Your task to perform on an android device: clear history in the chrome app Image 0: 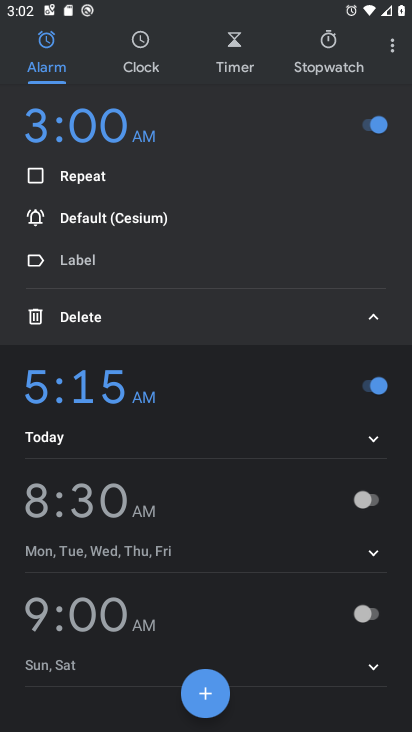
Step 0: press home button
Your task to perform on an android device: clear history in the chrome app Image 1: 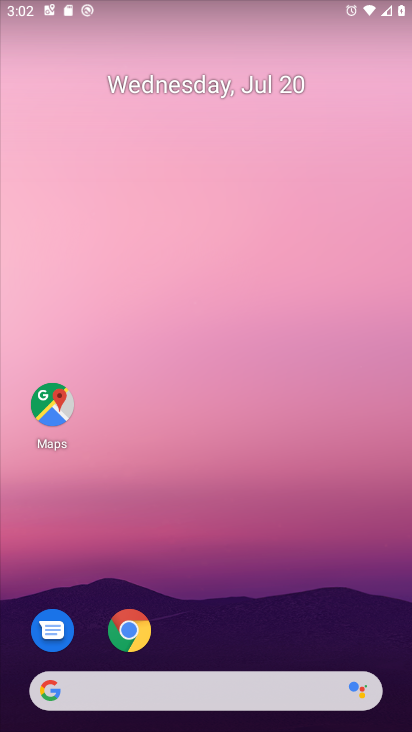
Step 1: drag from (232, 663) to (237, 237)
Your task to perform on an android device: clear history in the chrome app Image 2: 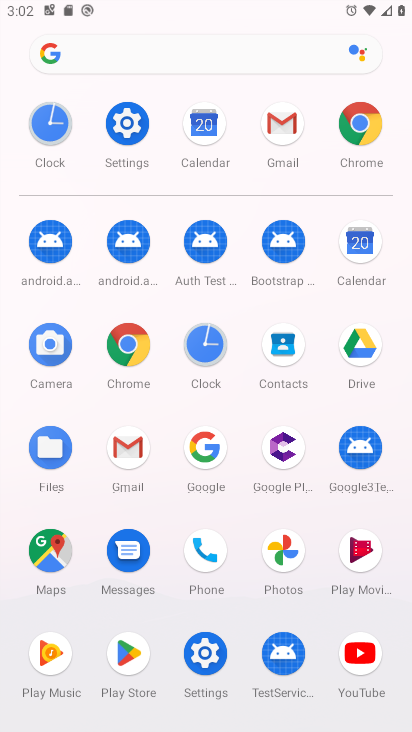
Step 2: click (360, 145)
Your task to perform on an android device: clear history in the chrome app Image 3: 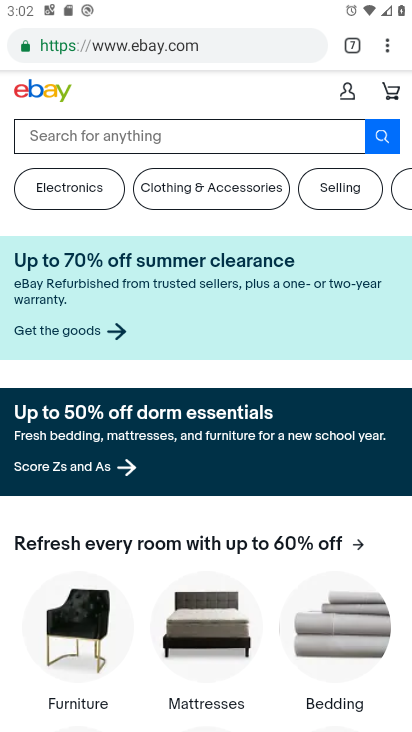
Step 3: click (391, 52)
Your task to perform on an android device: clear history in the chrome app Image 4: 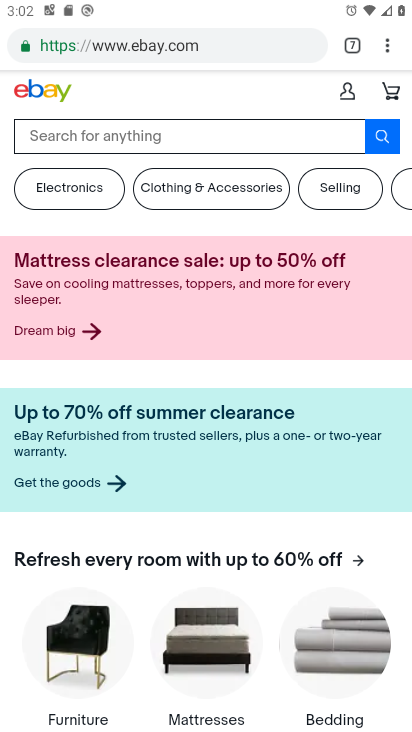
Step 4: click (384, 43)
Your task to perform on an android device: clear history in the chrome app Image 5: 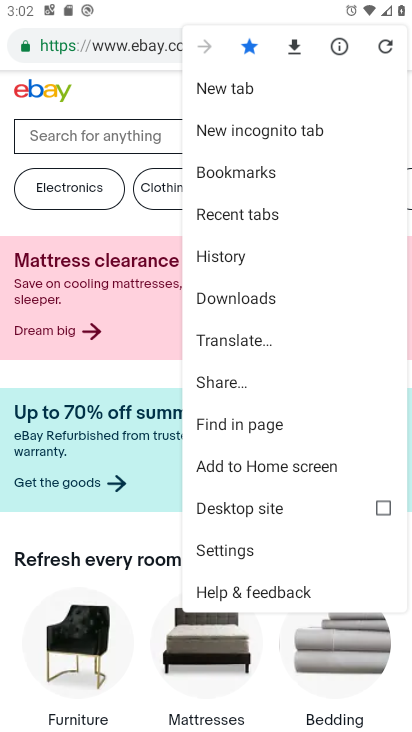
Step 5: click (223, 257)
Your task to perform on an android device: clear history in the chrome app Image 6: 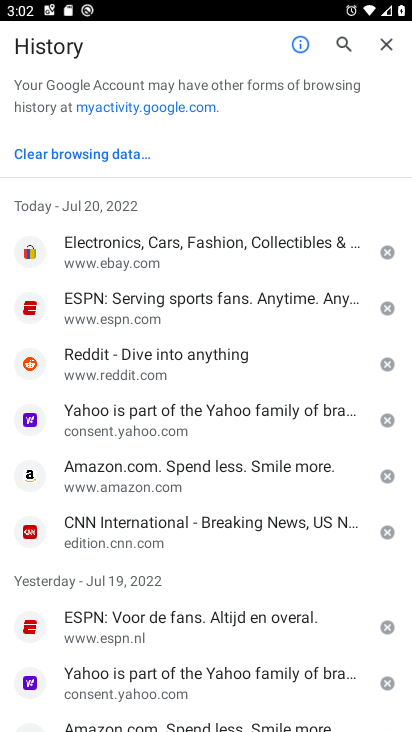
Step 6: click (84, 156)
Your task to perform on an android device: clear history in the chrome app Image 7: 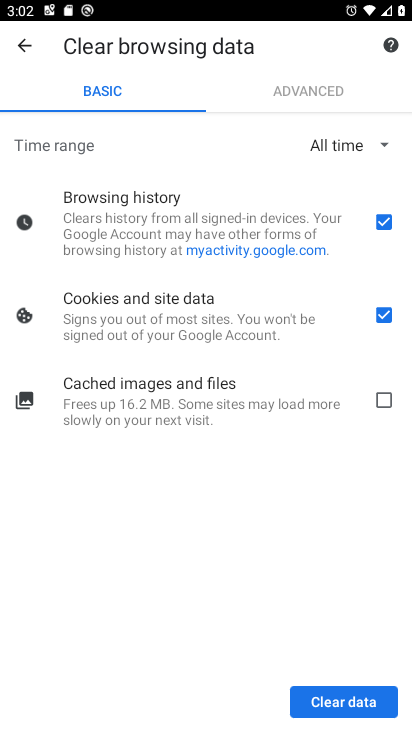
Step 7: click (387, 317)
Your task to perform on an android device: clear history in the chrome app Image 8: 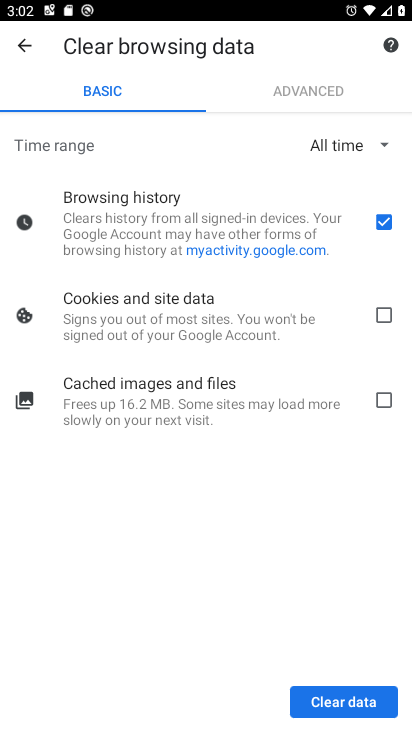
Step 8: click (368, 705)
Your task to perform on an android device: clear history in the chrome app Image 9: 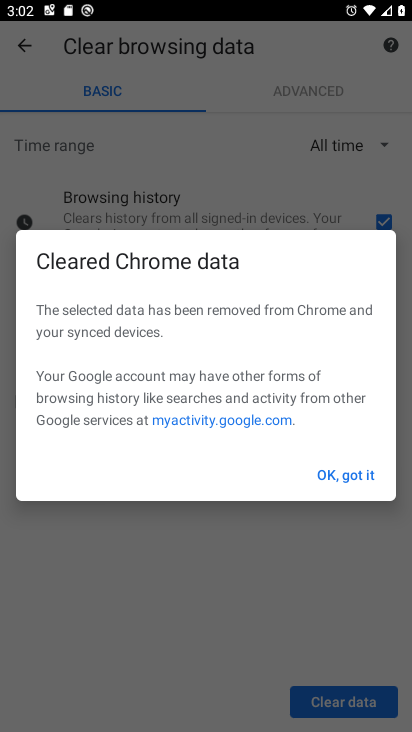
Step 9: click (348, 482)
Your task to perform on an android device: clear history in the chrome app Image 10: 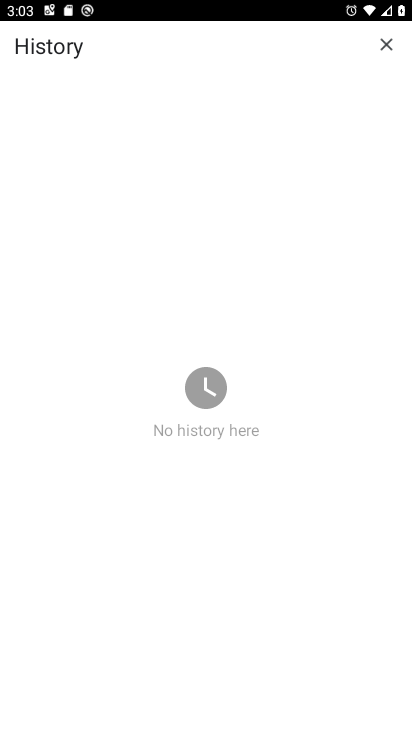
Step 10: task complete